Your task to perform on an android device: open app "Google Calendar" (install if not already installed) Image 0: 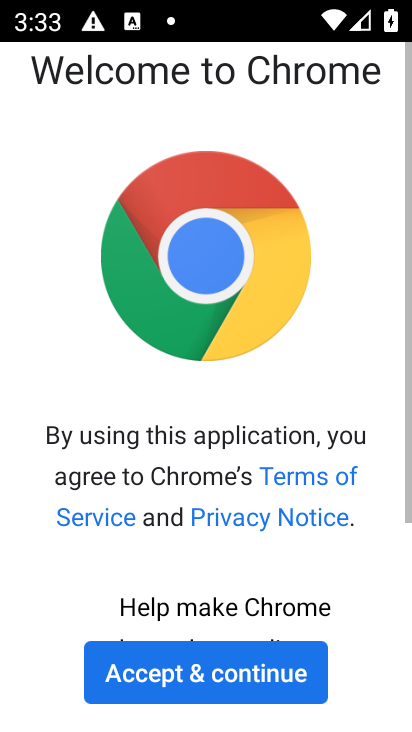
Step 0: press home button
Your task to perform on an android device: open app "Google Calendar" (install if not already installed) Image 1: 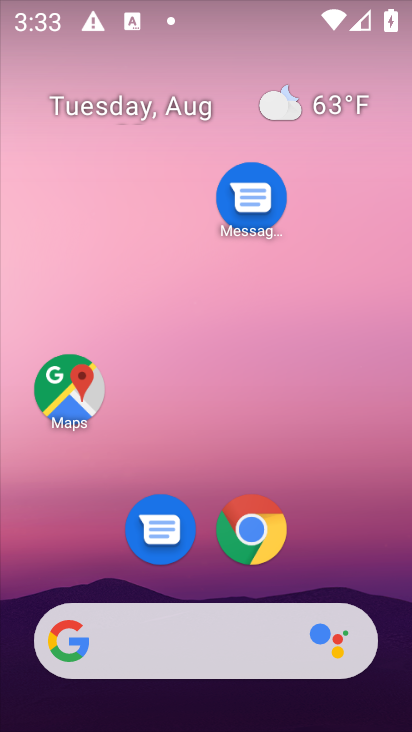
Step 1: drag from (271, 426) to (96, 3)
Your task to perform on an android device: open app "Google Calendar" (install if not already installed) Image 2: 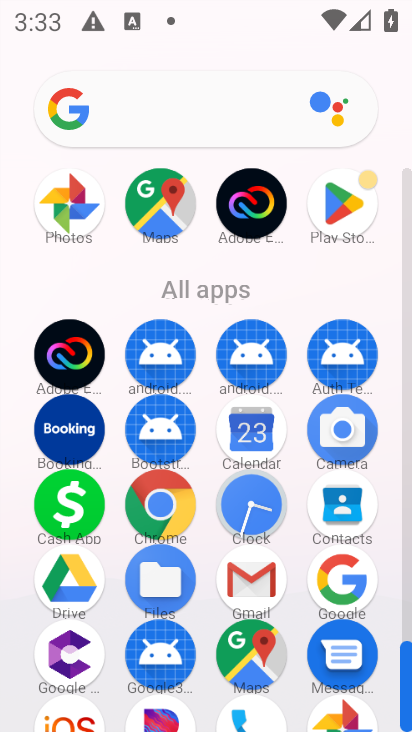
Step 2: click (344, 226)
Your task to perform on an android device: open app "Google Calendar" (install if not already installed) Image 3: 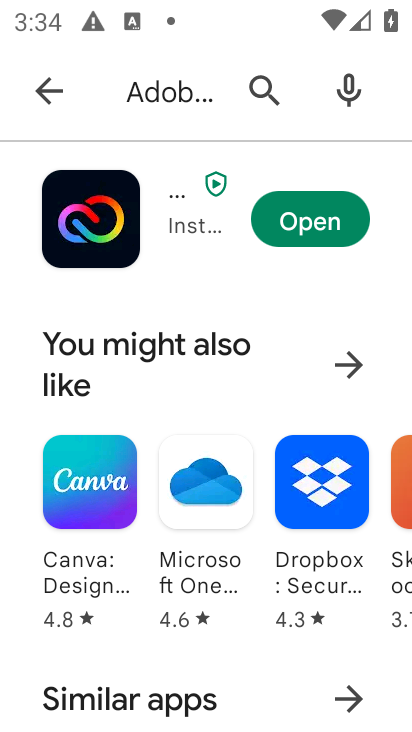
Step 3: press back button
Your task to perform on an android device: open app "Google Calendar" (install if not already installed) Image 4: 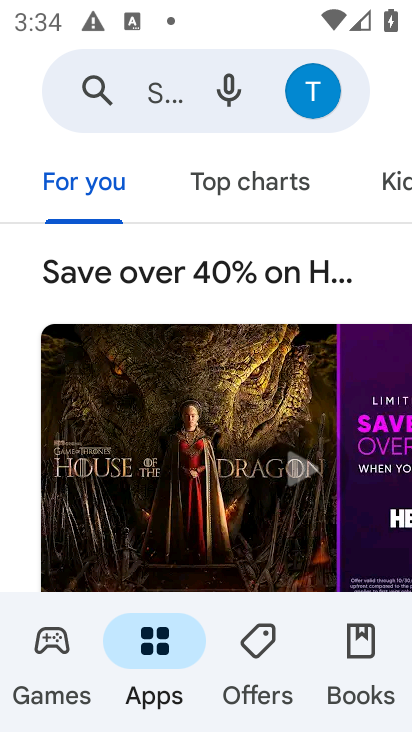
Step 4: click (181, 110)
Your task to perform on an android device: open app "Google Calendar" (install if not already installed) Image 5: 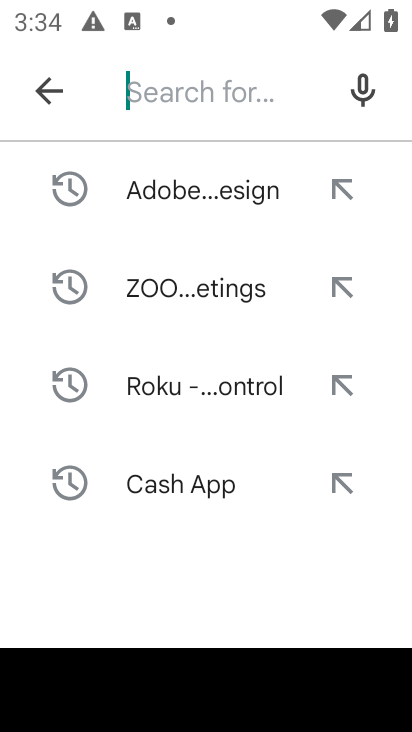
Step 5: type "Google Calendar"
Your task to perform on an android device: open app "Google Calendar" (install if not already installed) Image 6: 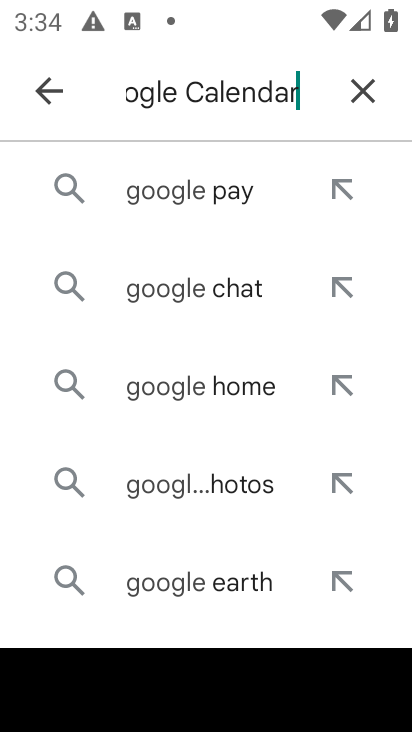
Step 6: press enter
Your task to perform on an android device: open app "Google Calendar" (install if not already installed) Image 7: 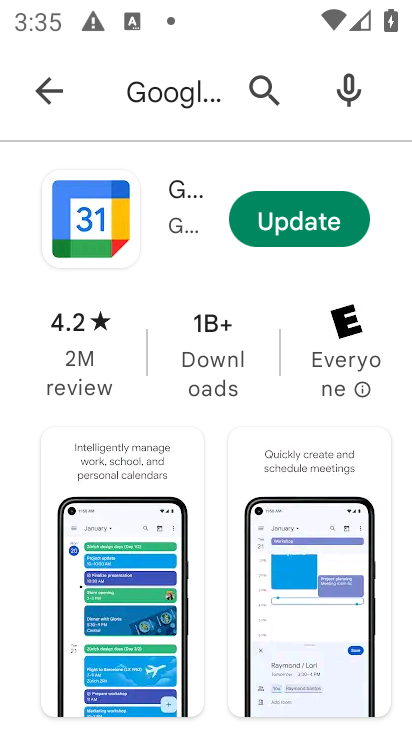
Step 7: click (283, 216)
Your task to perform on an android device: open app "Google Calendar" (install if not already installed) Image 8: 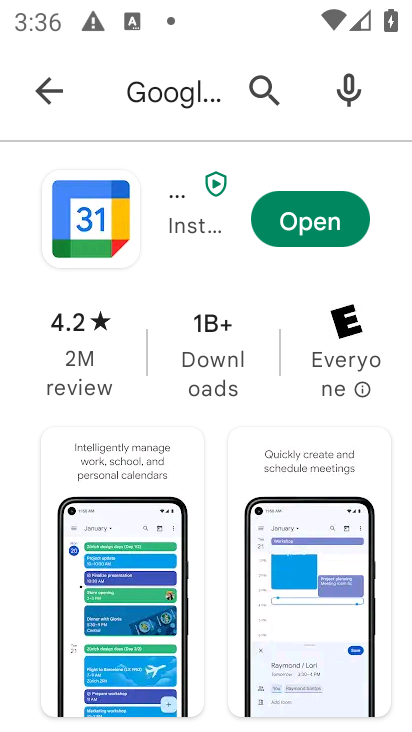
Step 8: click (319, 211)
Your task to perform on an android device: open app "Google Calendar" (install if not already installed) Image 9: 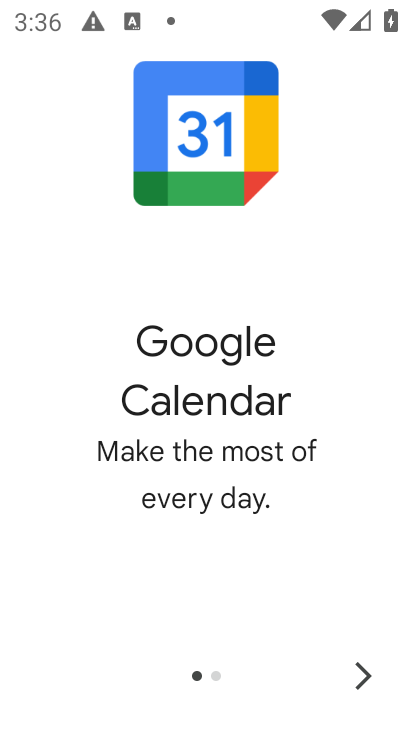
Step 9: click (359, 687)
Your task to perform on an android device: open app "Google Calendar" (install if not already installed) Image 10: 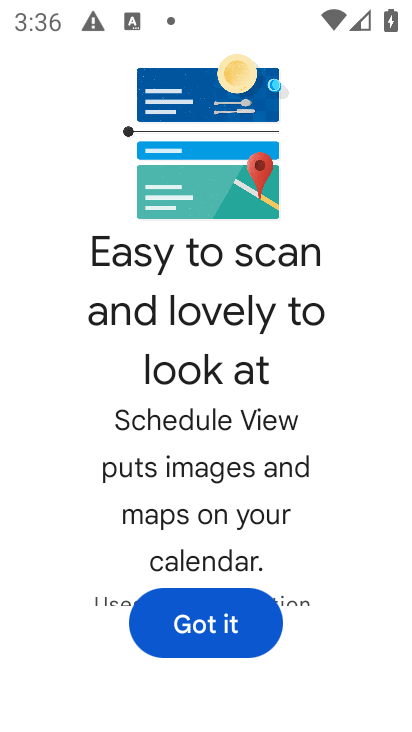
Step 10: click (225, 636)
Your task to perform on an android device: open app "Google Calendar" (install if not already installed) Image 11: 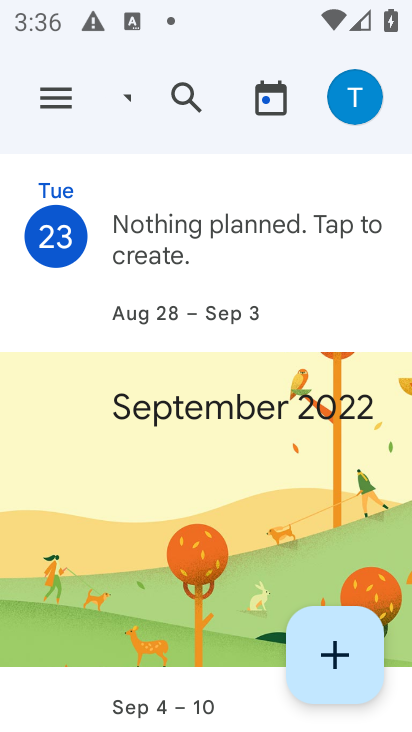
Step 11: task complete